Your task to perform on an android device: turn on translation in the chrome app Image 0: 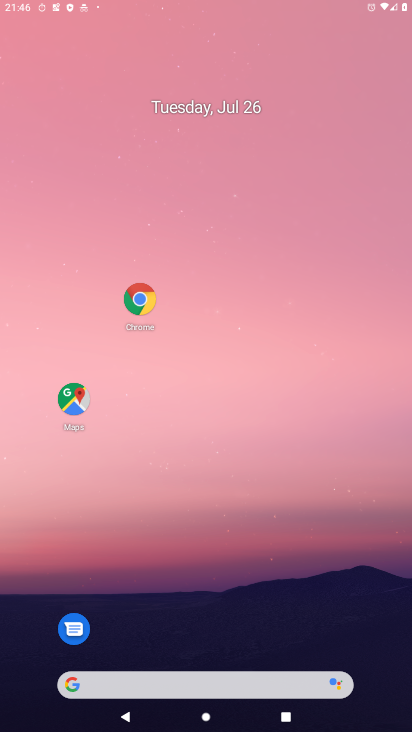
Step 0: press back button
Your task to perform on an android device: turn on translation in the chrome app Image 1: 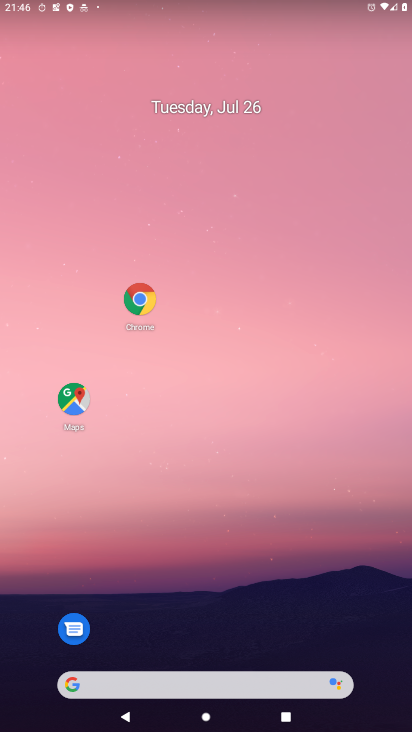
Step 1: drag from (220, 490) to (217, 180)
Your task to perform on an android device: turn on translation in the chrome app Image 2: 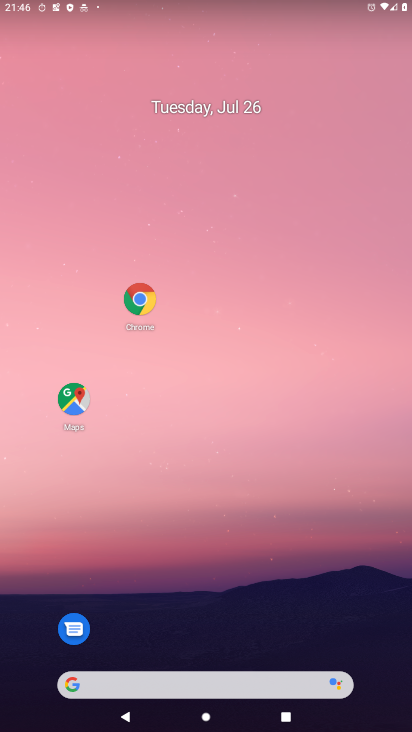
Step 2: drag from (232, 177) to (222, 94)
Your task to perform on an android device: turn on translation in the chrome app Image 3: 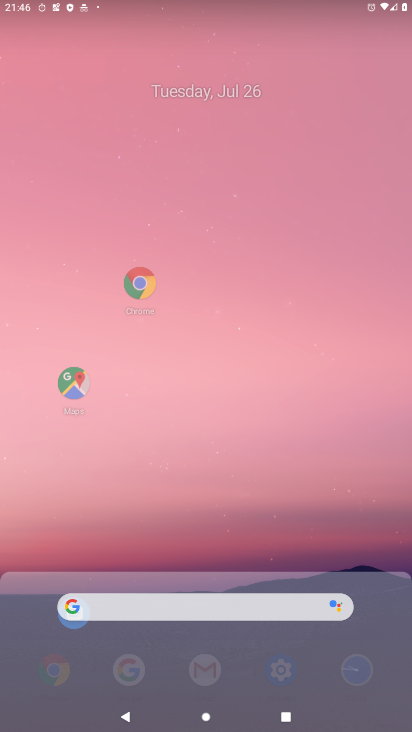
Step 3: drag from (231, 436) to (231, 122)
Your task to perform on an android device: turn on translation in the chrome app Image 4: 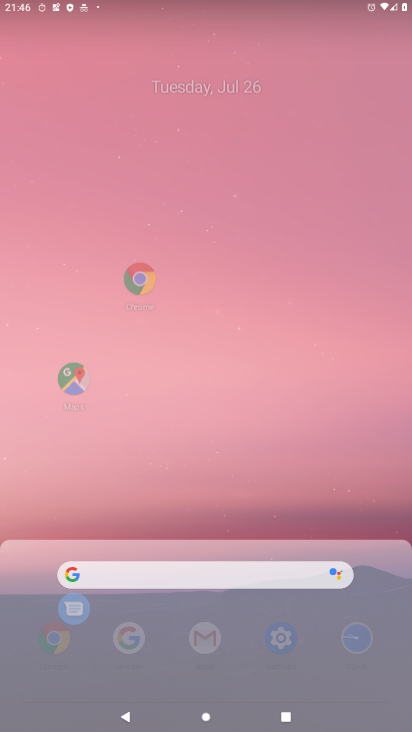
Step 4: click (238, 52)
Your task to perform on an android device: turn on translation in the chrome app Image 5: 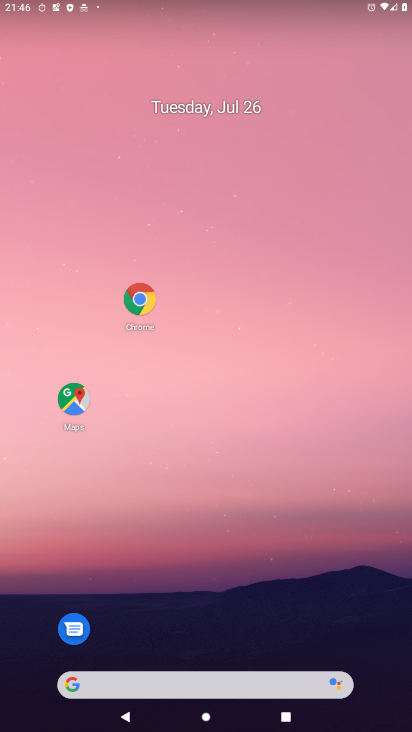
Step 5: drag from (190, 529) to (223, 6)
Your task to perform on an android device: turn on translation in the chrome app Image 6: 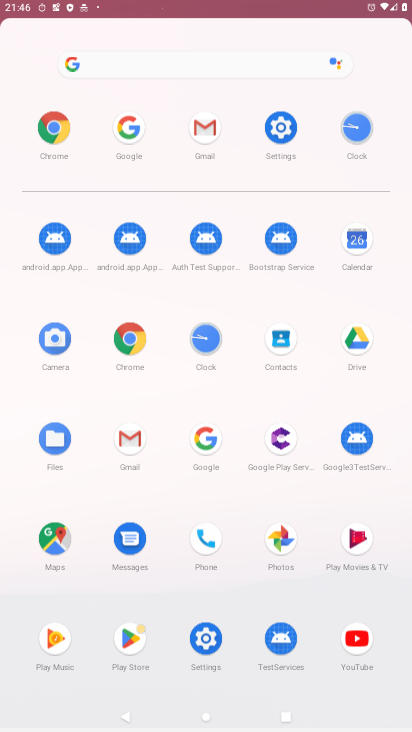
Step 6: drag from (244, 44) to (254, 3)
Your task to perform on an android device: turn on translation in the chrome app Image 7: 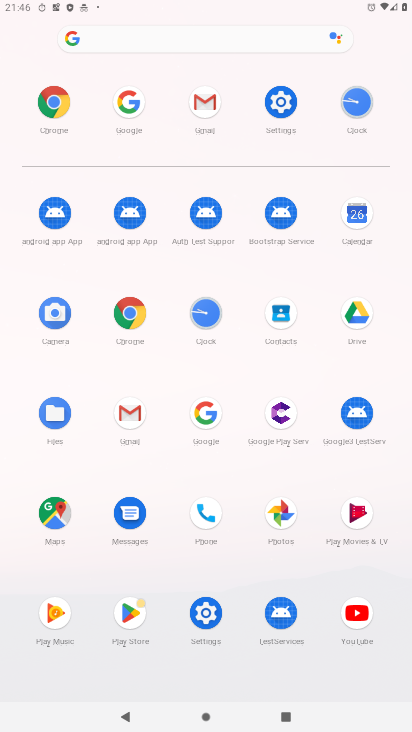
Step 7: click (129, 314)
Your task to perform on an android device: turn on translation in the chrome app Image 8: 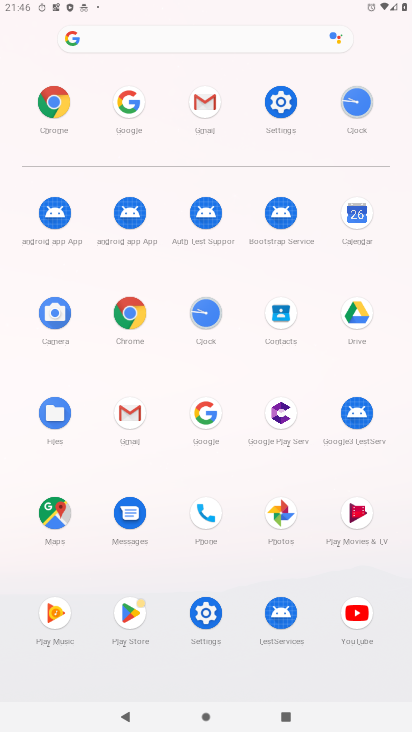
Step 8: click (129, 314)
Your task to perform on an android device: turn on translation in the chrome app Image 9: 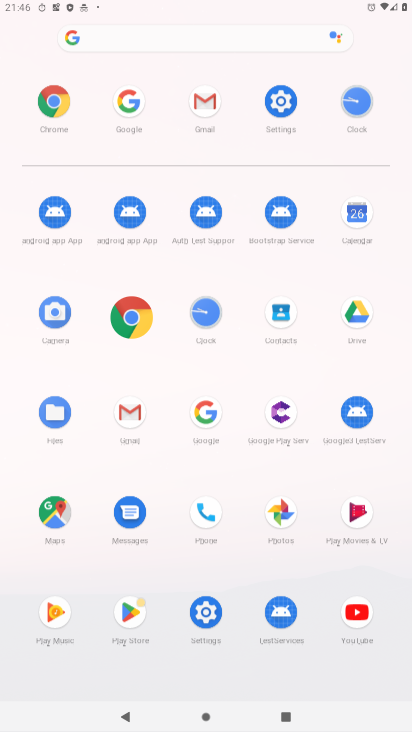
Step 9: click (129, 314)
Your task to perform on an android device: turn on translation in the chrome app Image 10: 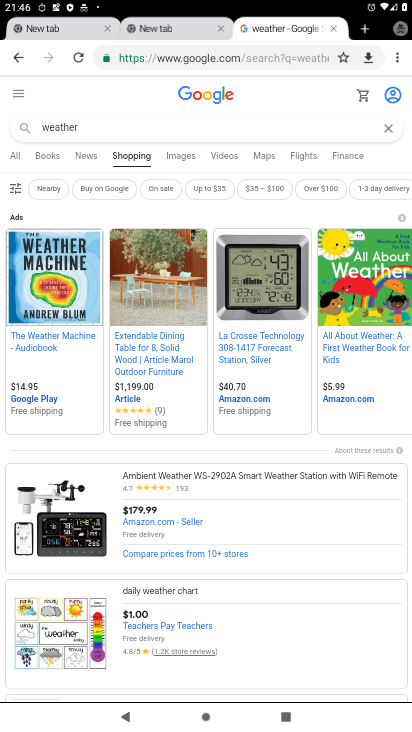
Step 10: drag from (392, 54) to (280, 378)
Your task to perform on an android device: turn on translation in the chrome app Image 11: 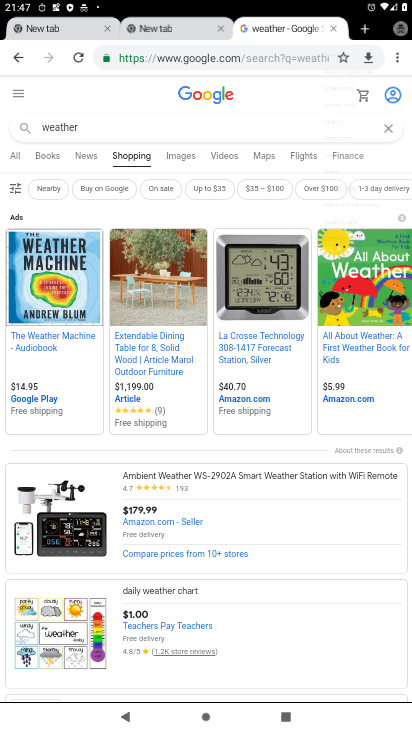
Step 11: click (278, 384)
Your task to perform on an android device: turn on translation in the chrome app Image 12: 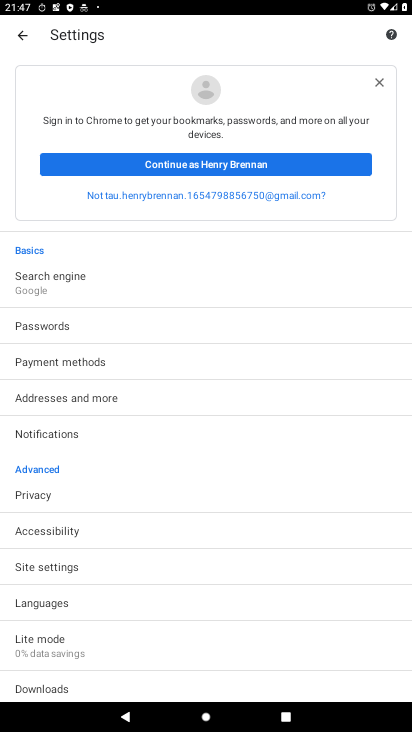
Step 12: click (59, 604)
Your task to perform on an android device: turn on translation in the chrome app Image 13: 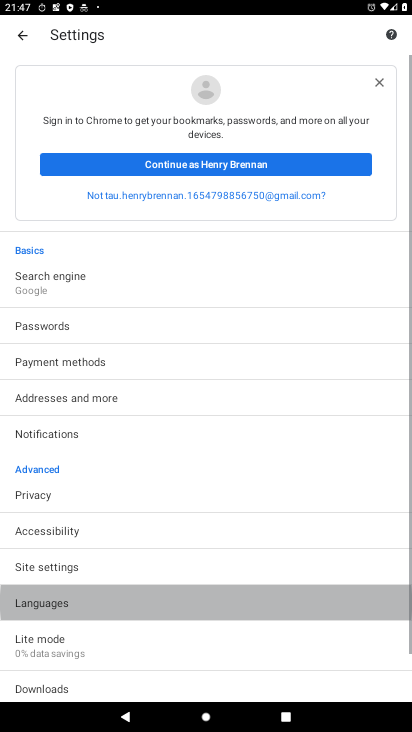
Step 13: click (59, 604)
Your task to perform on an android device: turn on translation in the chrome app Image 14: 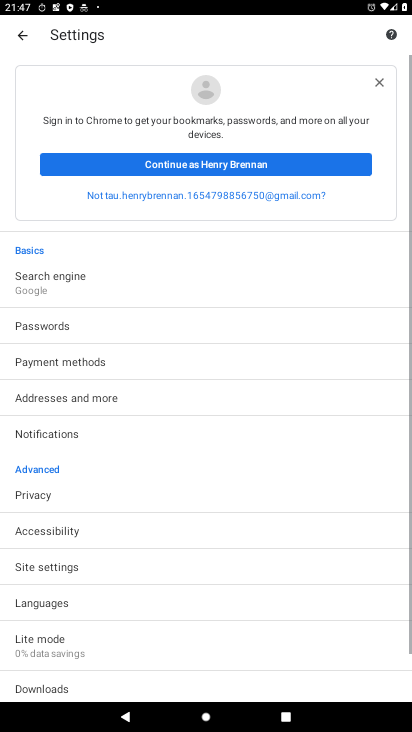
Step 14: click (59, 604)
Your task to perform on an android device: turn on translation in the chrome app Image 15: 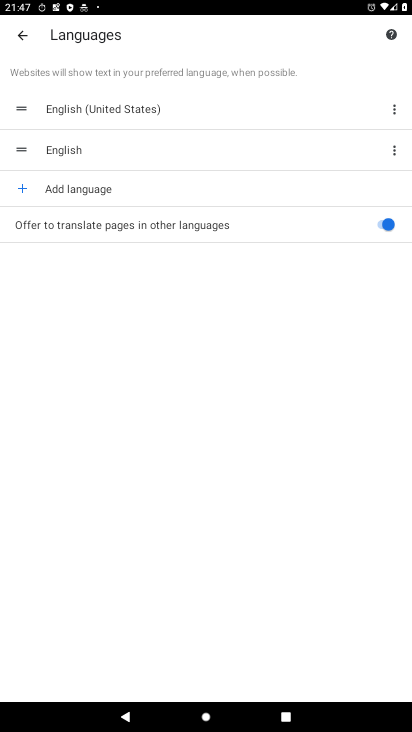
Step 15: task complete